Your task to perform on an android device: Open Chrome and go to settings Image 0: 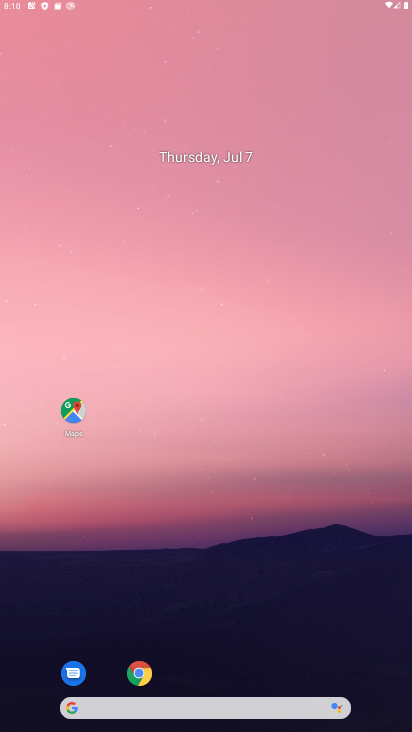
Step 0: press home button
Your task to perform on an android device: Open Chrome and go to settings Image 1: 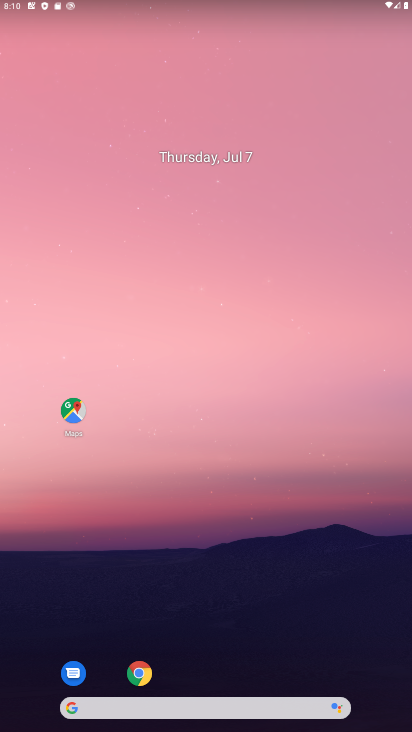
Step 1: press home button
Your task to perform on an android device: Open Chrome and go to settings Image 2: 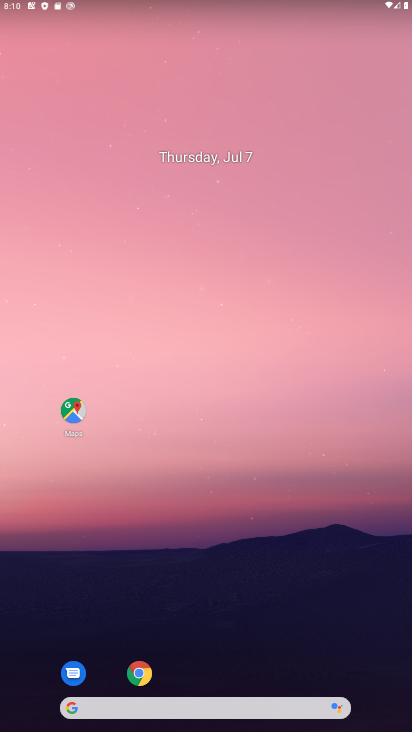
Step 2: drag from (228, 682) to (225, 12)
Your task to perform on an android device: Open Chrome and go to settings Image 3: 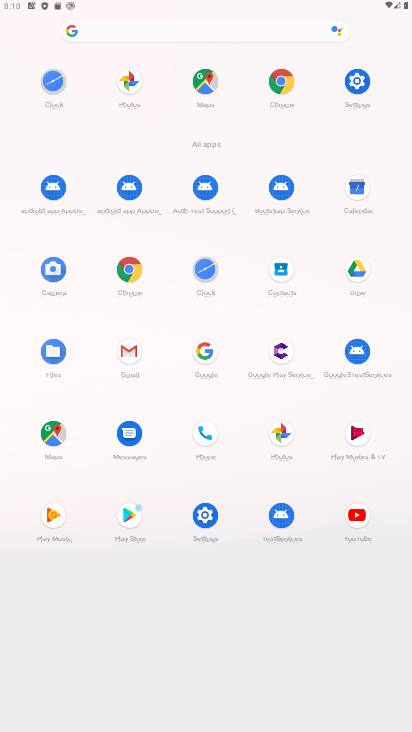
Step 3: click (282, 85)
Your task to perform on an android device: Open Chrome and go to settings Image 4: 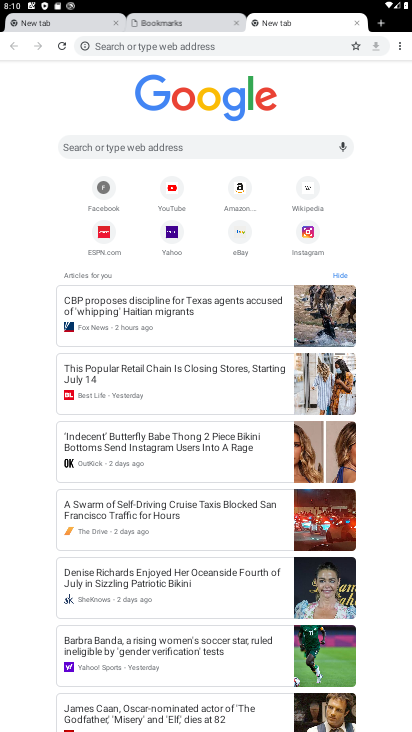
Step 4: task complete